Your task to perform on an android device: Clear the shopping cart on target. Add logitech g pro to the cart on target Image 0: 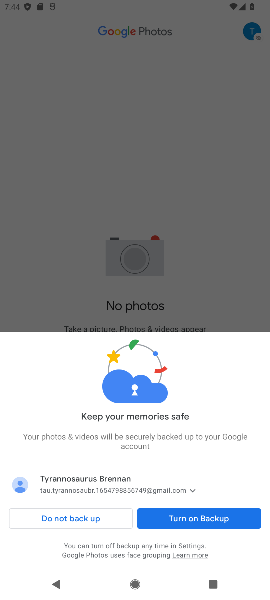
Step 0: press home button
Your task to perform on an android device: Clear the shopping cart on target. Add logitech g pro to the cart on target Image 1: 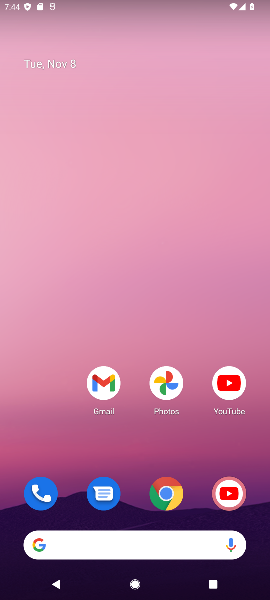
Step 1: click (169, 496)
Your task to perform on an android device: Clear the shopping cart on target. Add logitech g pro to the cart on target Image 2: 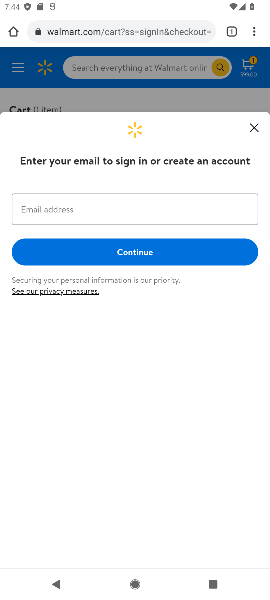
Step 2: click (124, 30)
Your task to perform on an android device: Clear the shopping cart on target. Add logitech g pro to the cart on target Image 3: 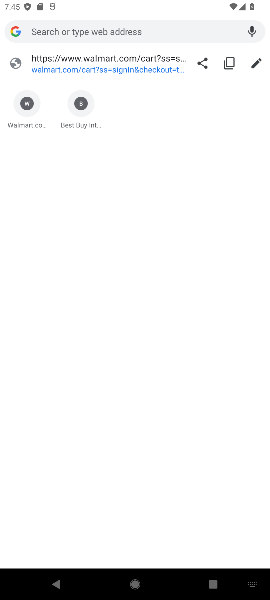
Step 3: type "target.com"
Your task to perform on an android device: Clear the shopping cart on target. Add logitech g pro to the cart on target Image 4: 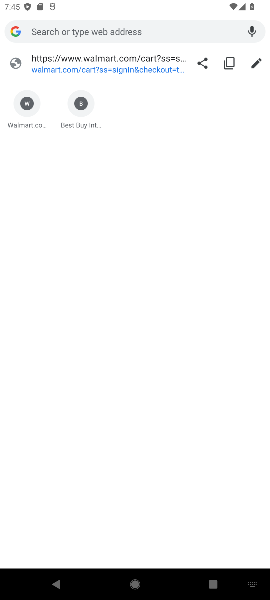
Step 4: click (67, 33)
Your task to perform on an android device: Clear the shopping cart on target. Add logitech g pro to the cart on target Image 5: 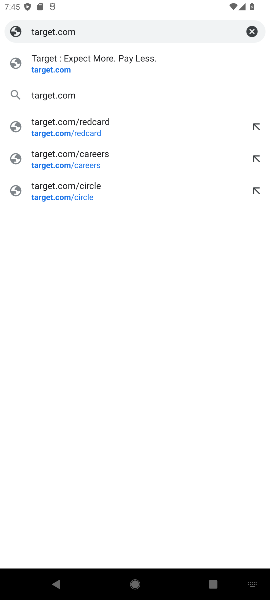
Step 5: click (54, 69)
Your task to perform on an android device: Clear the shopping cart on target. Add logitech g pro to the cart on target Image 6: 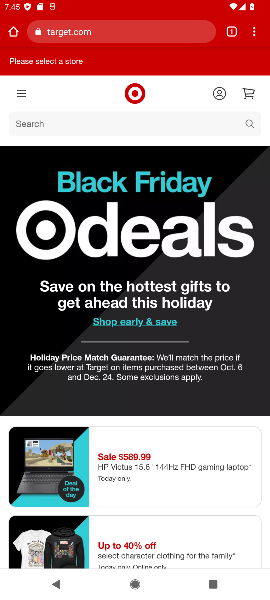
Step 6: click (248, 91)
Your task to perform on an android device: Clear the shopping cart on target. Add logitech g pro to the cart on target Image 7: 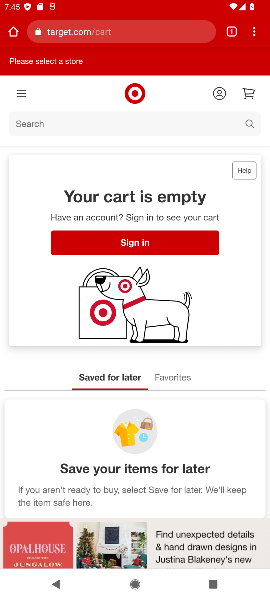
Step 7: click (245, 122)
Your task to perform on an android device: Clear the shopping cart on target. Add logitech g pro to the cart on target Image 8: 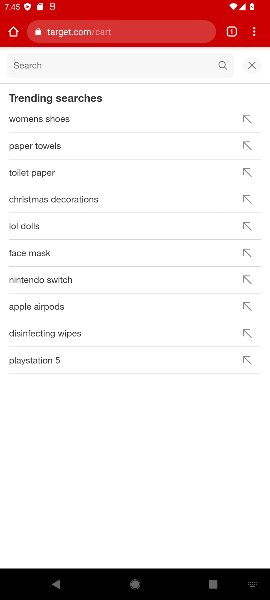
Step 8: type "logitech g pro"
Your task to perform on an android device: Clear the shopping cart on target. Add logitech g pro to the cart on target Image 9: 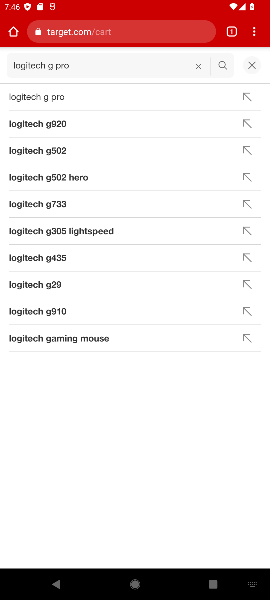
Step 9: click (44, 96)
Your task to perform on an android device: Clear the shopping cart on target. Add logitech g pro to the cart on target Image 10: 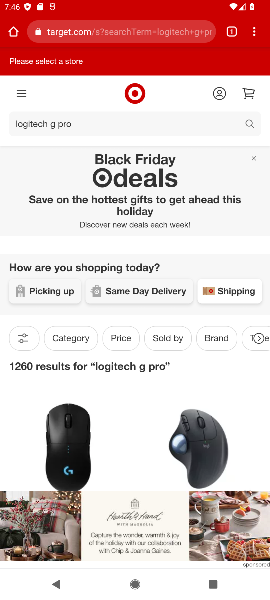
Step 10: click (114, 248)
Your task to perform on an android device: Clear the shopping cart on target. Add logitech g pro to the cart on target Image 11: 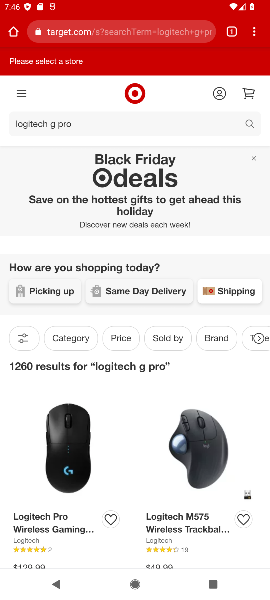
Step 11: task complete